Your task to perform on an android device: Open Google Maps and go to "Timeline" Image 0: 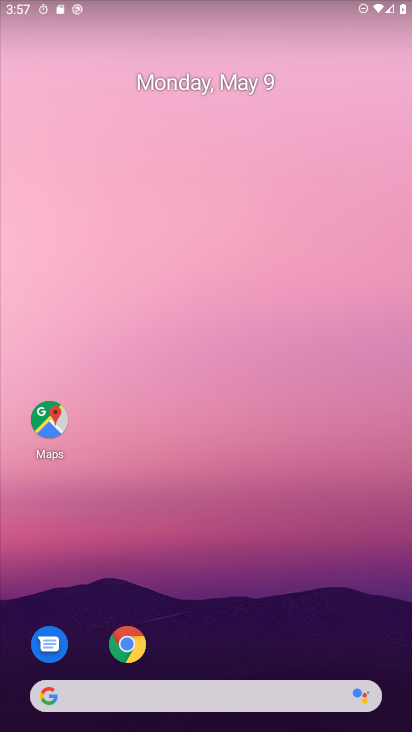
Step 0: drag from (251, 641) to (302, 228)
Your task to perform on an android device: Open Google Maps and go to "Timeline" Image 1: 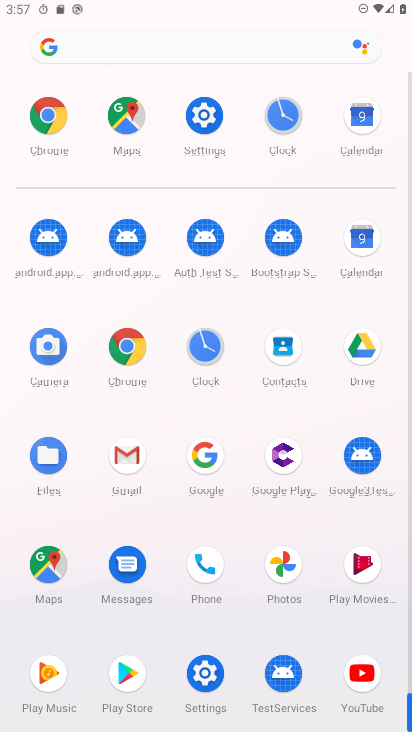
Step 1: click (128, 149)
Your task to perform on an android device: Open Google Maps and go to "Timeline" Image 2: 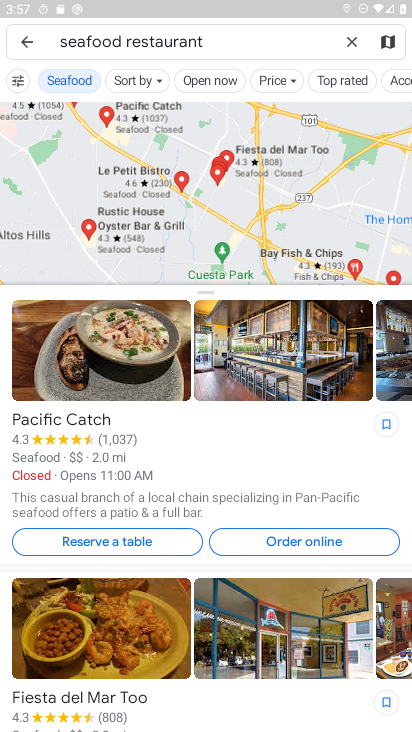
Step 2: click (20, 45)
Your task to perform on an android device: Open Google Maps and go to "Timeline" Image 3: 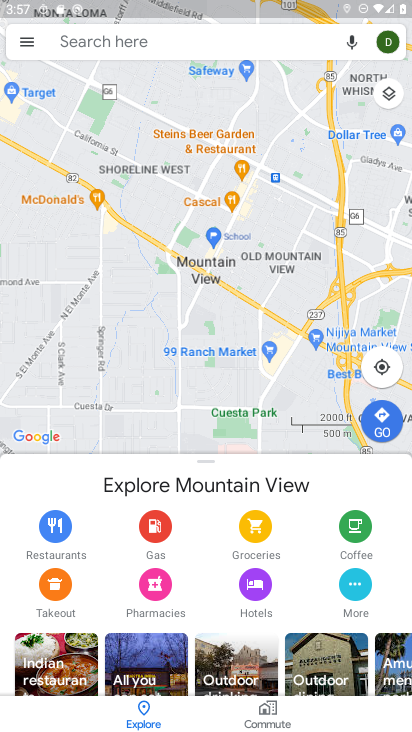
Step 3: click (26, 43)
Your task to perform on an android device: Open Google Maps and go to "Timeline" Image 4: 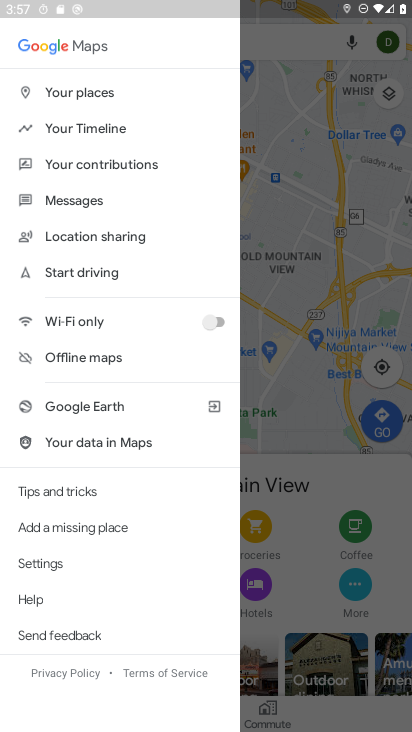
Step 4: click (91, 124)
Your task to perform on an android device: Open Google Maps and go to "Timeline" Image 5: 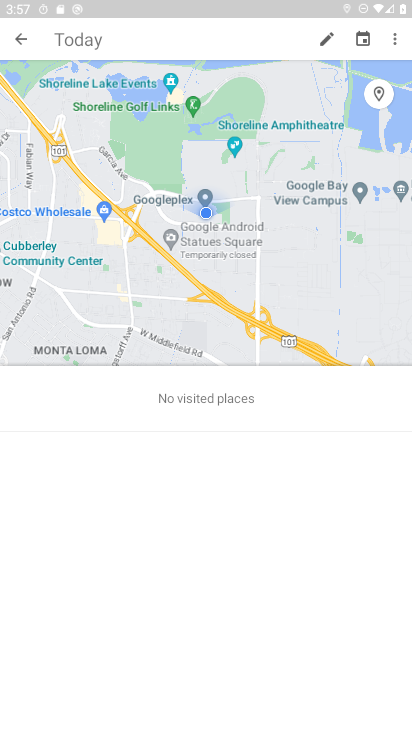
Step 5: task complete